Your task to perform on an android device: delete location history Image 0: 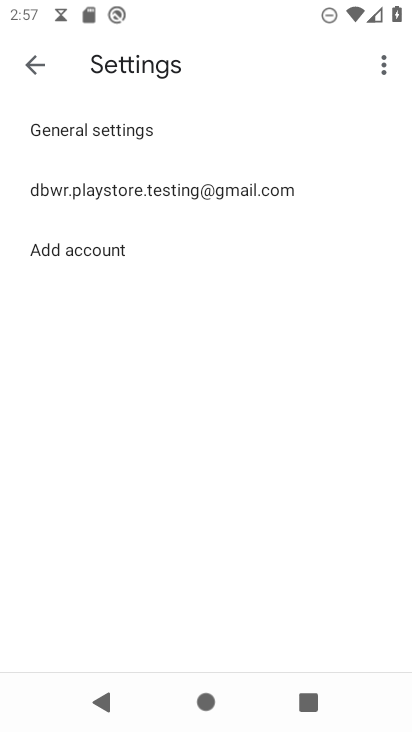
Step 0: press home button
Your task to perform on an android device: delete location history Image 1: 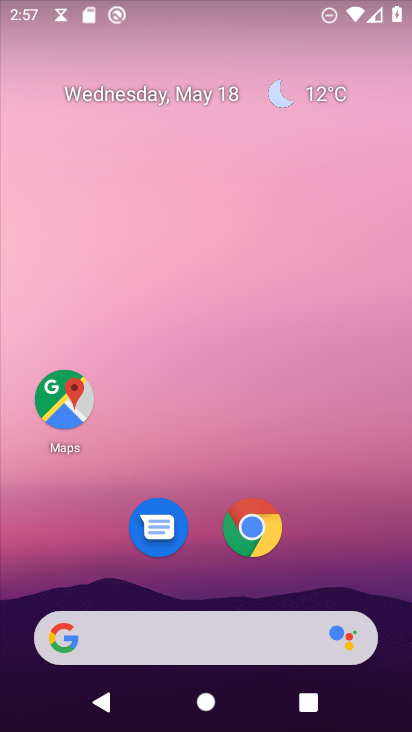
Step 1: drag from (330, 524) to (208, 91)
Your task to perform on an android device: delete location history Image 2: 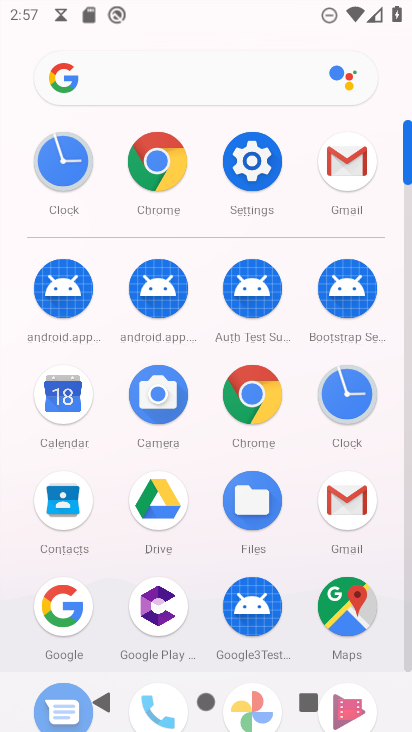
Step 2: click (262, 170)
Your task to perform on an android device: delete location history Image 3: 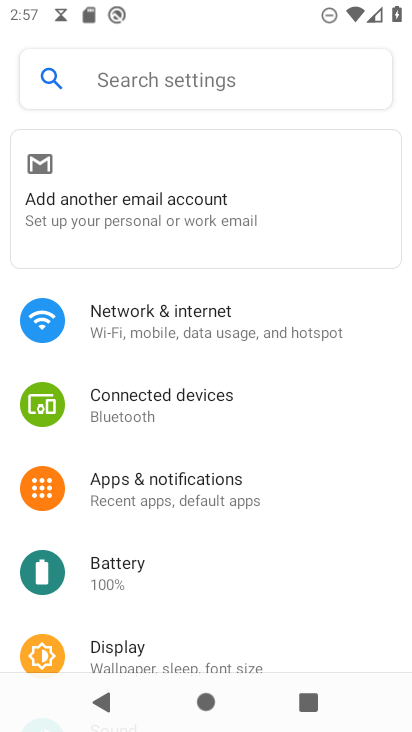
Step 3: drag from (240, 533) to (242, 68)
Your task to perform on an android device: delete location history Image 4: 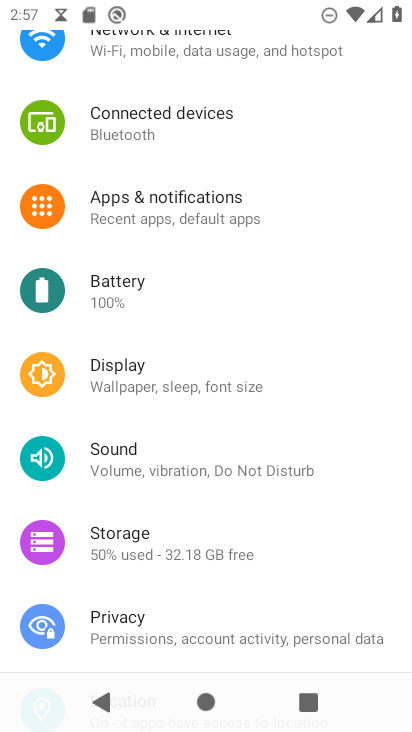
Step 4: drag from (192, 562) to (176, 222)
Your task to perform on an android device: delete location history Image 5: 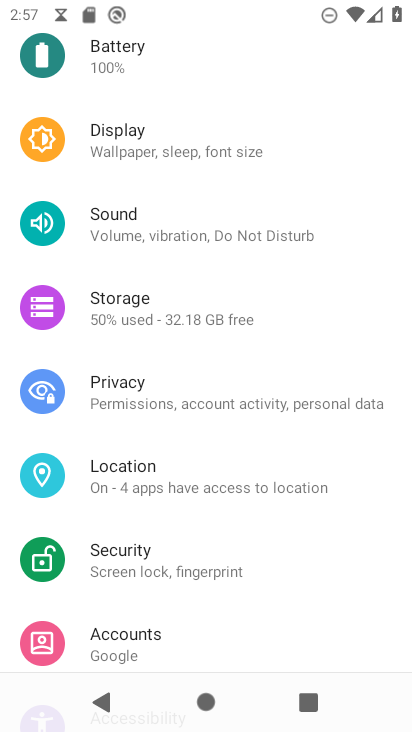
Step 5: click (191, 499)
Your task to perform on an android device: delete location history Image 6: 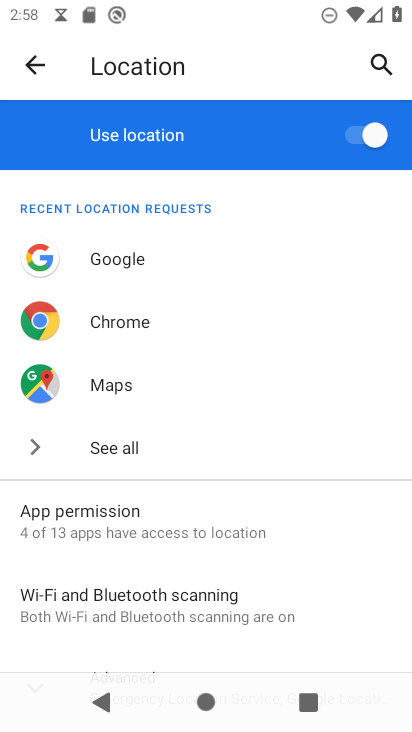
Step 6: drag from (279, 582) to (233, 248)
Your task to perform on an android device: delete location history Image 7: 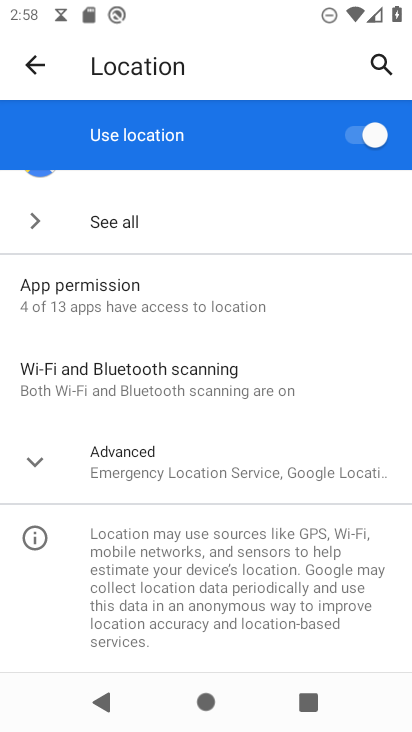
Step 7: click (199, 442)
Your task to perform on an android device: delete location history Image 8: 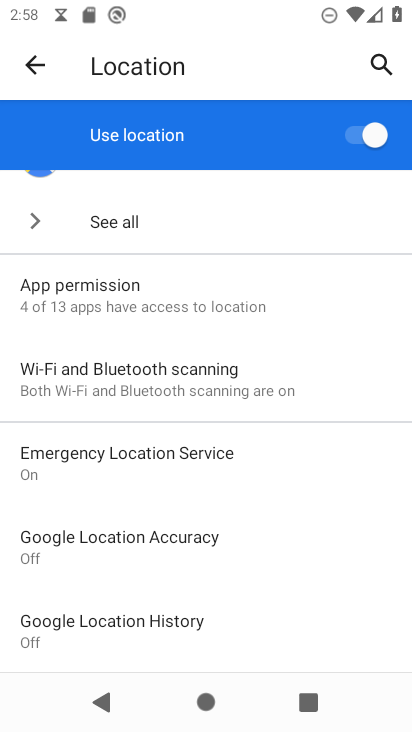
Step 8: click (198, 624)
Your task to perform on an android device: delete location history Image 9: 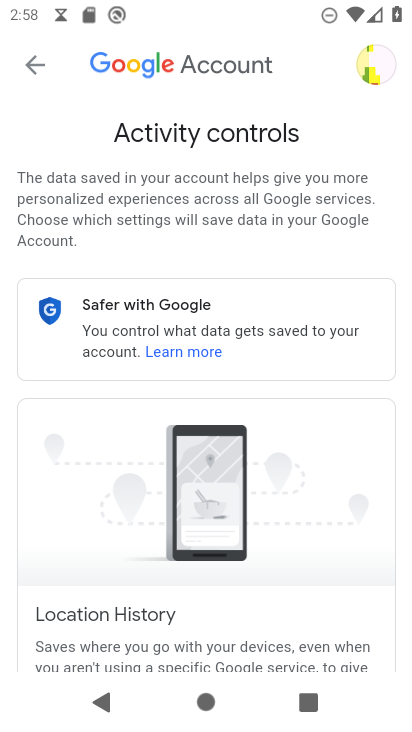
Step 9: drag from (264, 602) to (218, 292)
Your task to perform on an android device: delete location history Image 10: 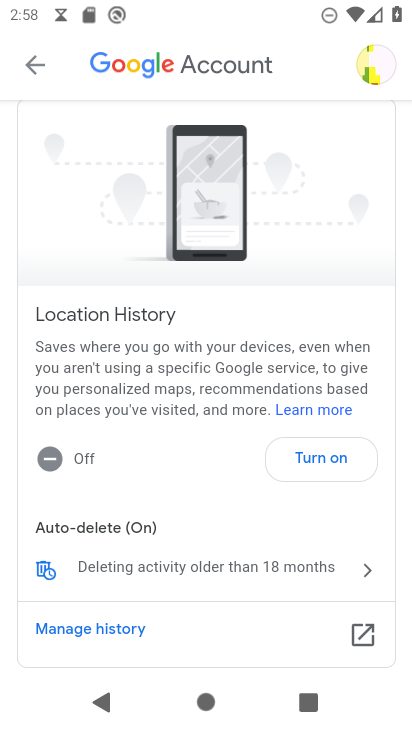
Step 10: drag from (193, 575) to (193, 305)
Your task to perform on an android device: delete location history Image 11: 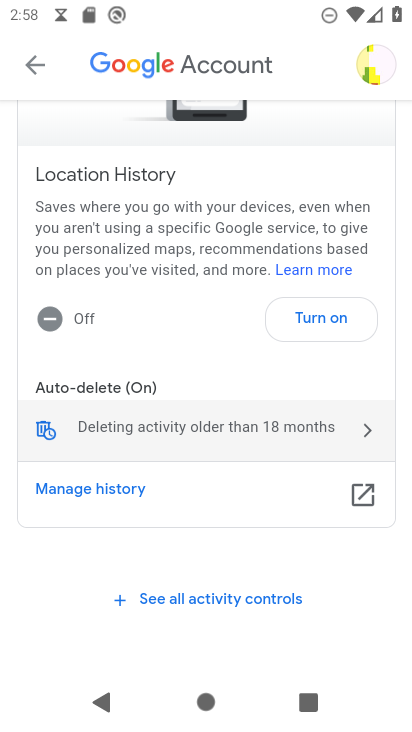
Step 11: click (41, 423)
Your task to perform on an android device: delete location history Image 12: 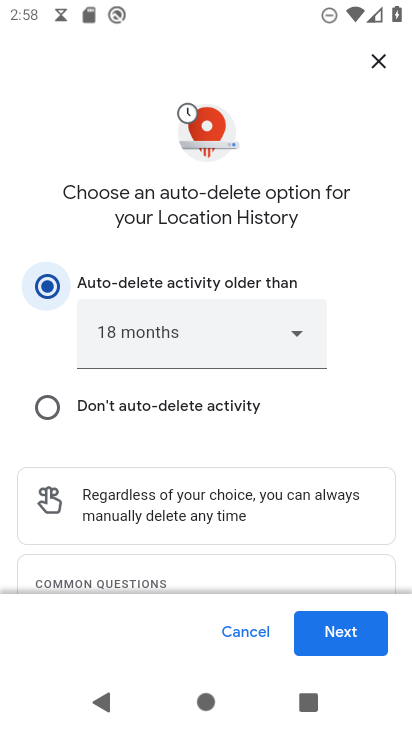
Step 12: click (40, 404)
Your task to perform on an android device: delete location history Image 13: 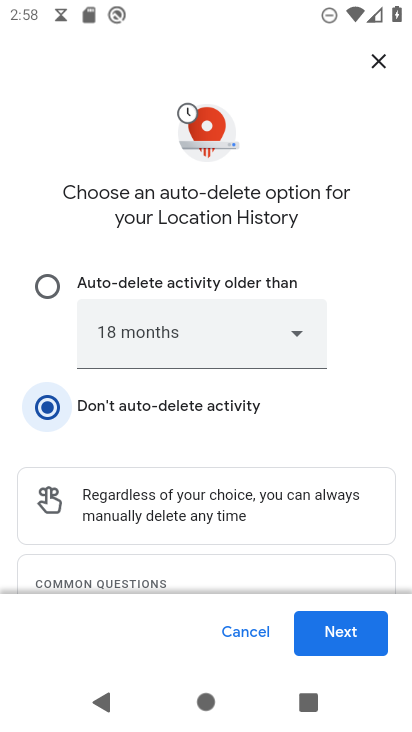
Step 13: click (337, 631)
Your task to perform on an android device: delete location history Image 14: 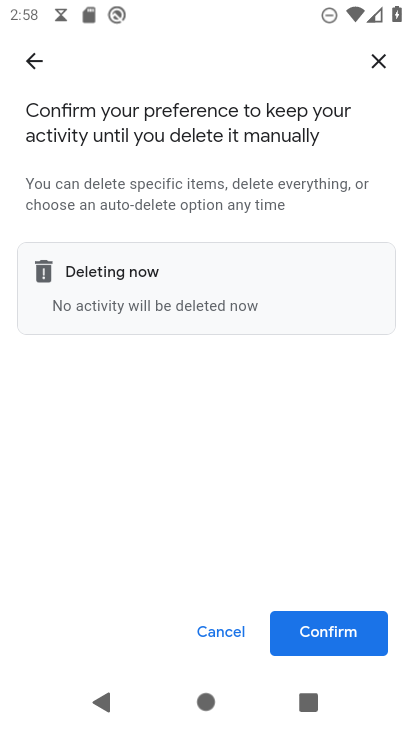
Step 14: click (347, 628)
Your task to perform on an android device: delete location history Image 15: 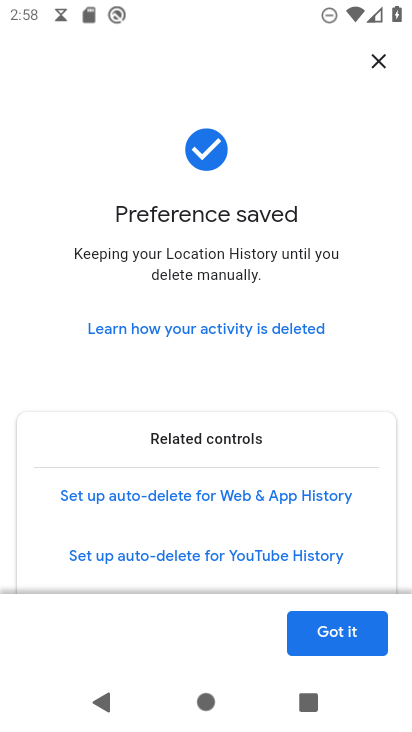
Step 15: click (374, 636)
Your task to perform on an android device: delete location history Image 16: 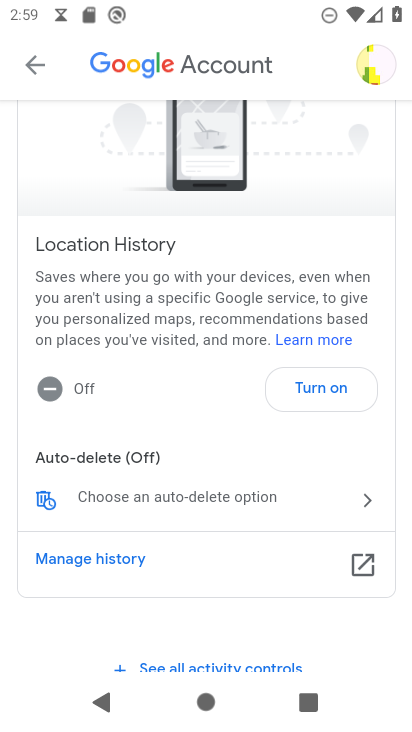
Step 16: task complete